Your task to perform on an android device: Open wifi settings Image 0: 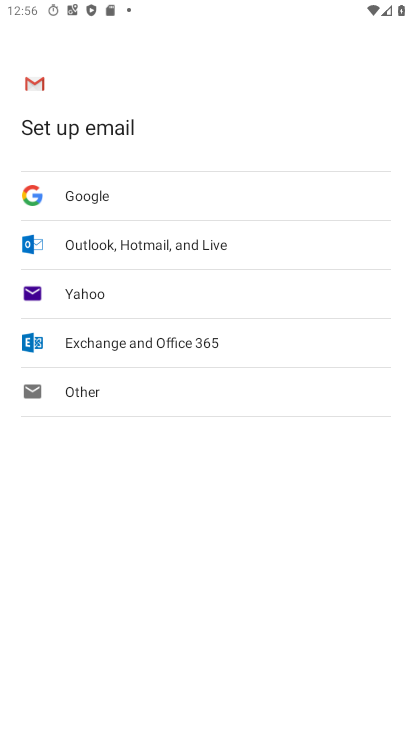
Step 0: press home button
Your task to perform on an android device: Open wifi settings Image 1: 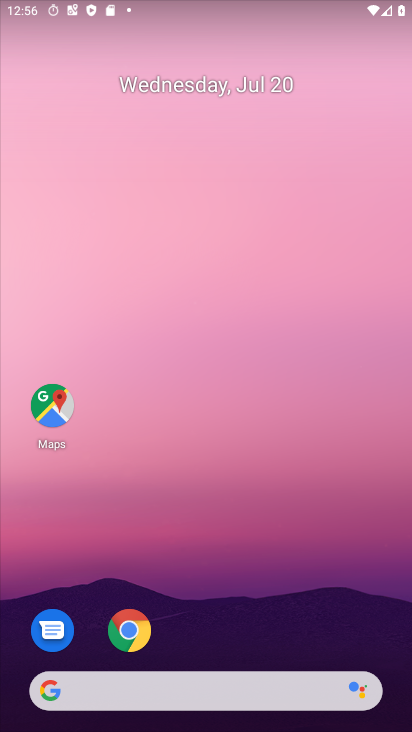
Step 1: drag from (307, 613) to (334, 1)
Your task to perform on an android device: Open wifi settings Image 2: 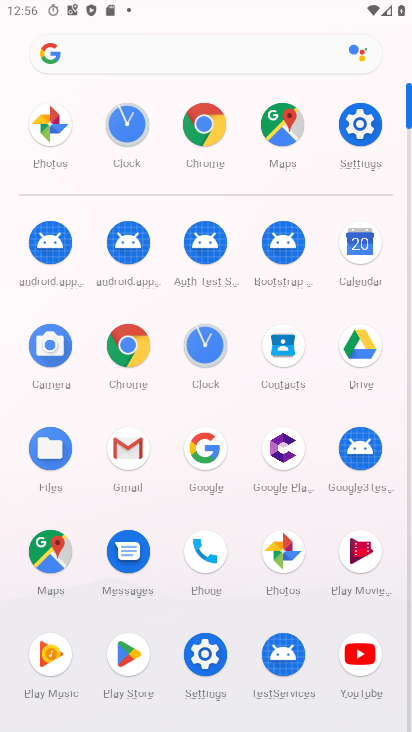
Step 2: click (365, 140)
Your task to perform on an android device: Open wifi settings Image 3: 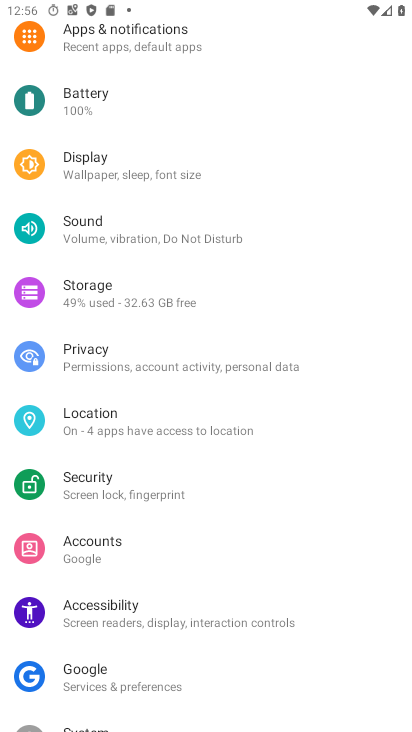
Step 3: drag from (112, 92) to (158, 334)
Your task to perform on an android device: Open wifi settings Image 4: 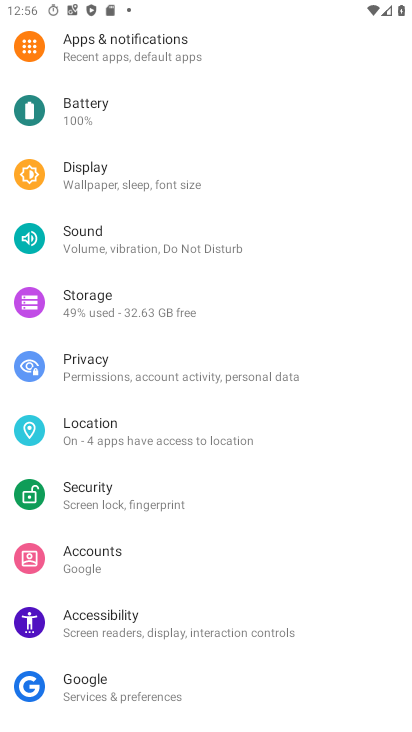
Step 4: drag from (218, 178) to (259, 498)
Your task to perform on an android device: Open wifi settings Image 5: 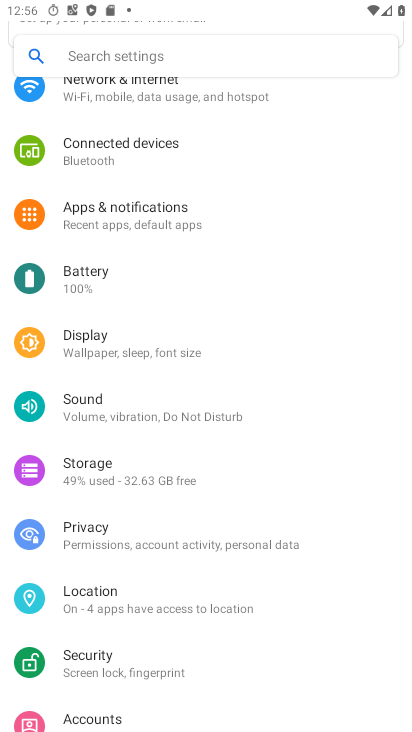
Step 5: click (118, 106)
Your task to perform on an android device: Open wifi settings Image 6: 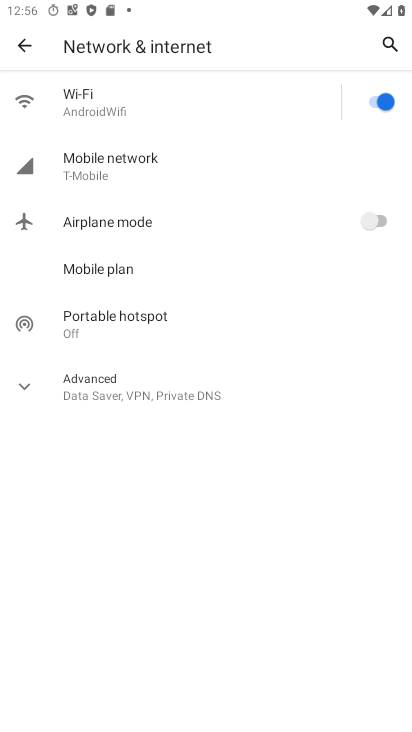
Step 6: click (166, 105)
Your task to perform on an android device: Open wifi settings Image 7: 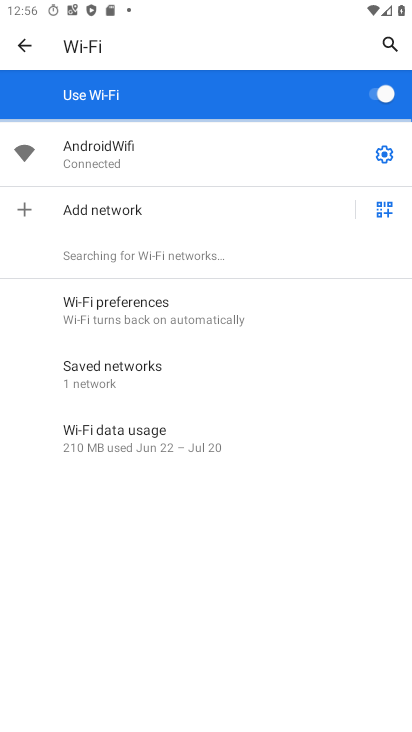
Step 7: task complete